Your task to perform on an android device: open a new tab in the chrome app Image 0: 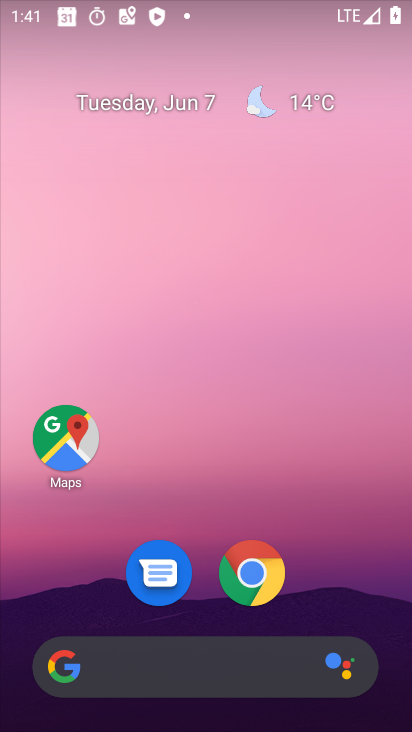
Step 0: click (241, 579)
Your task to perform on an android device: open a new tab in the chrome app Image 1: 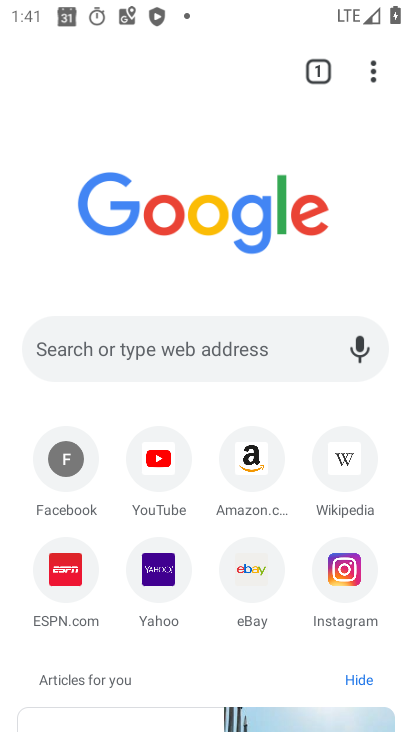
Step 1: click (371, 70)
Your task to perform on an android device: open a new tab in the chrome app Image 2: 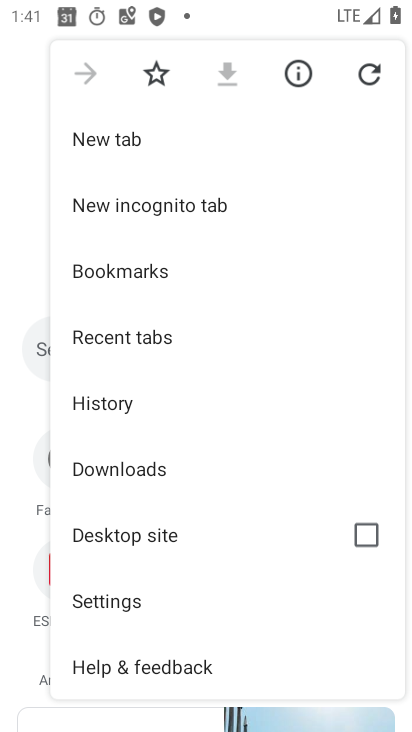
Step 2: click (131, 148)
Your task to perform on an android device: open a new tab in the chrome app Image 3: 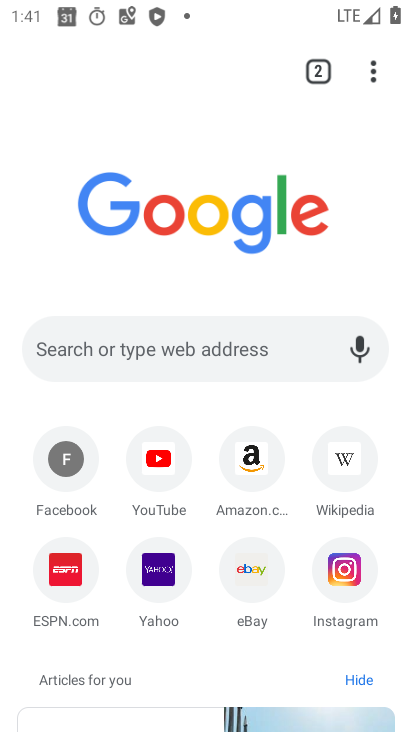
Step 3: task complete